Your task to perform on an android device: What is the recent news? Image 0: 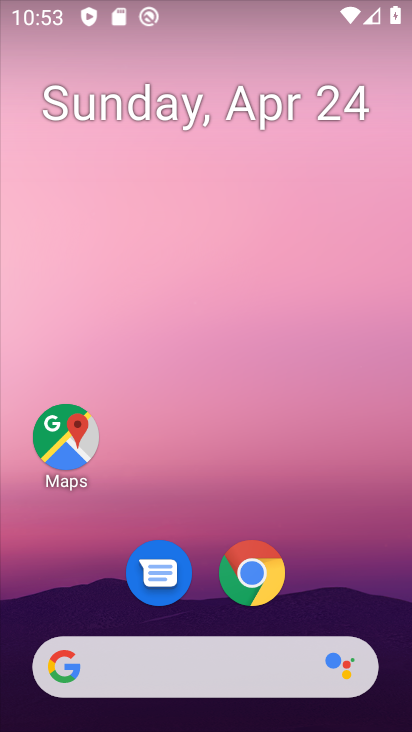
Step 0: drag from (251, 100) to (251, 43)
Your task to perform on an android device: What is the recent news? Image 1: 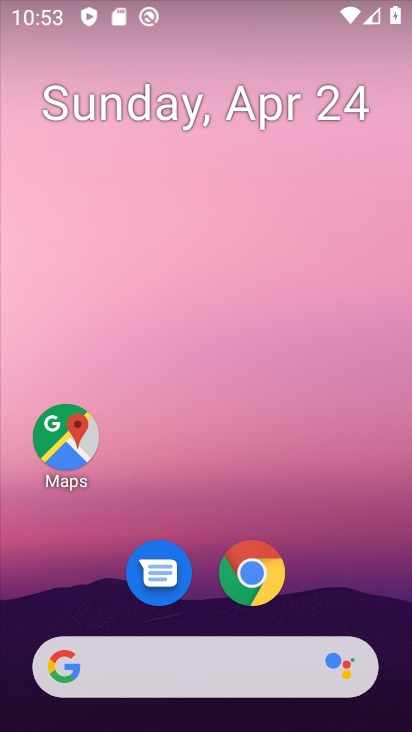
Step 1: drag from (374, 628) to (374, 78)
Your task to perform on an android device: What is the recent news? Image 2: 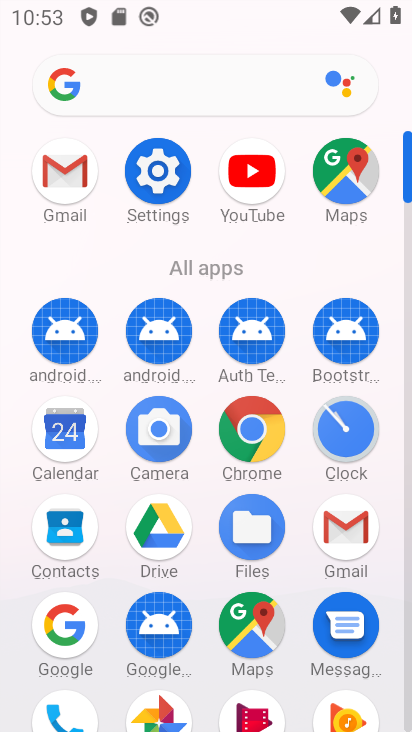
Step 2: click (208, 98)
Your task to perform on an android device: What is the recent news? Image 3: 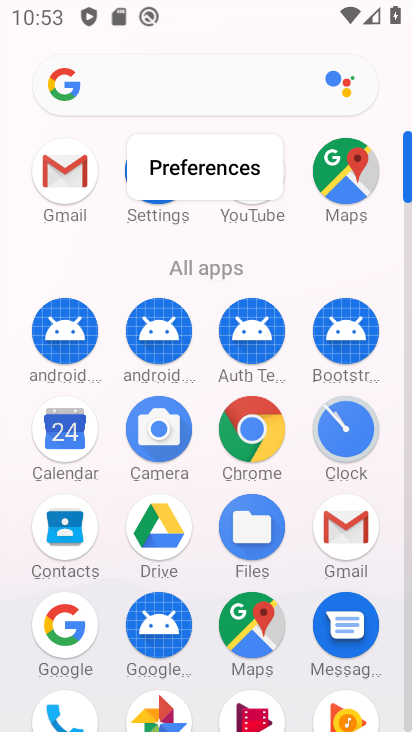
Step 3: click (98, 68)
Your task to perform on an android device: What is the recent news? Image 4: 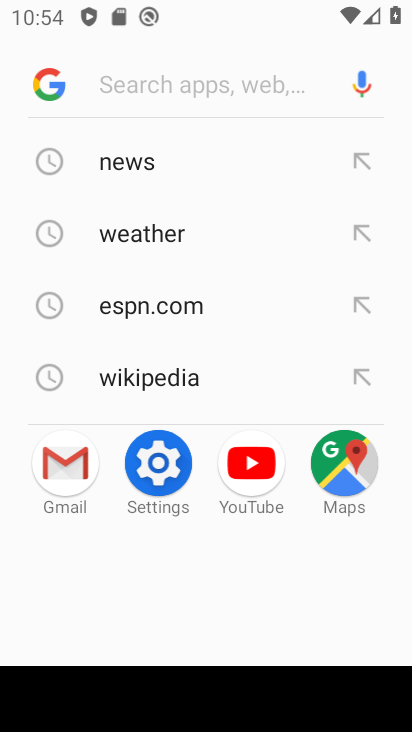
Step 4: type "what is the recent news"
Your task to perform on an android device: What is the recent news? Image 5: 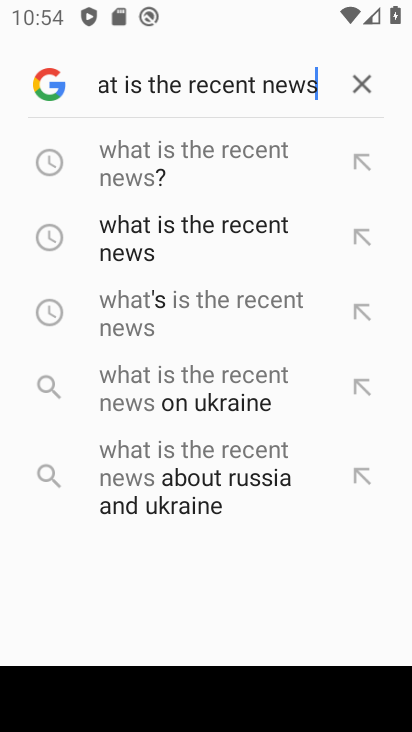
Step 5: click (256, 158)
Your task to perform on an android device: What is the recent news? Image 6: 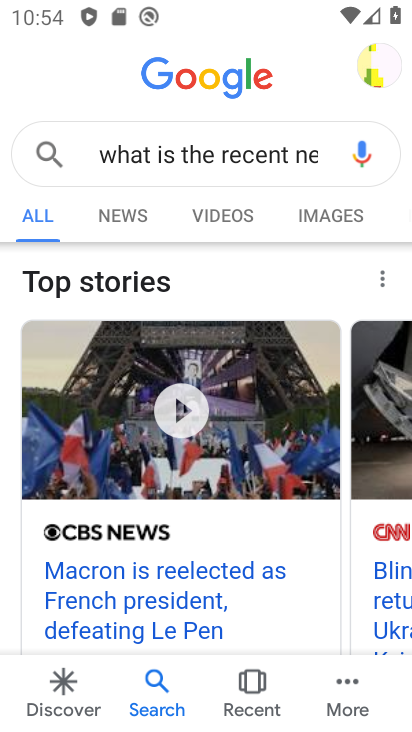
Step 6: click (123, 213)
Your task to perform on an android device: What is the recent news? Image 7: 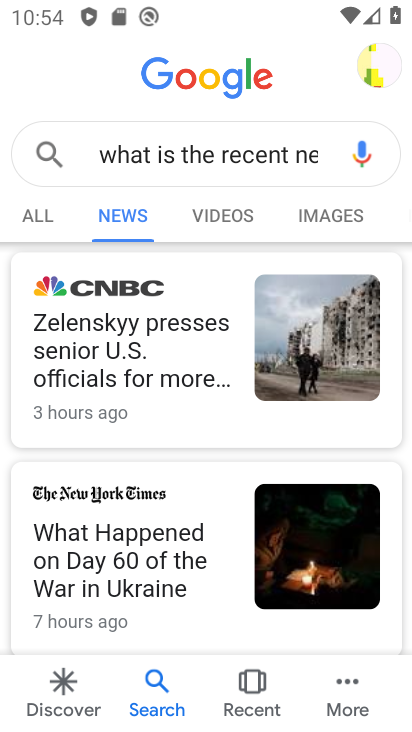
Step 7: task complete